Your task to perform on an android device: add a contact in the contacts app Image 0: 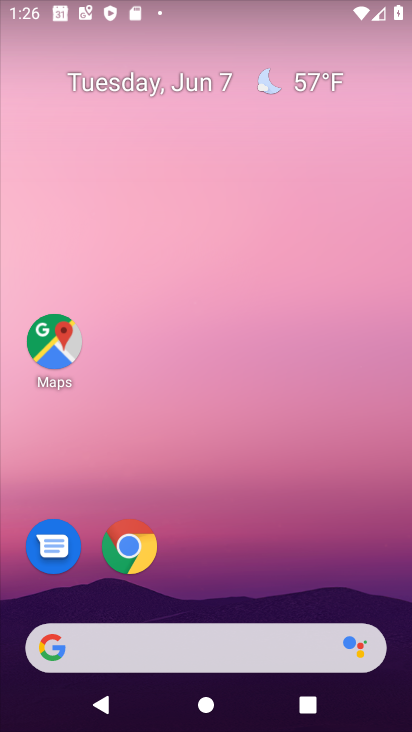
Step 0: drag from (254, 587) to (241, 215)
Your task to perform on an android device: add a contact in the contacts app Image 1: 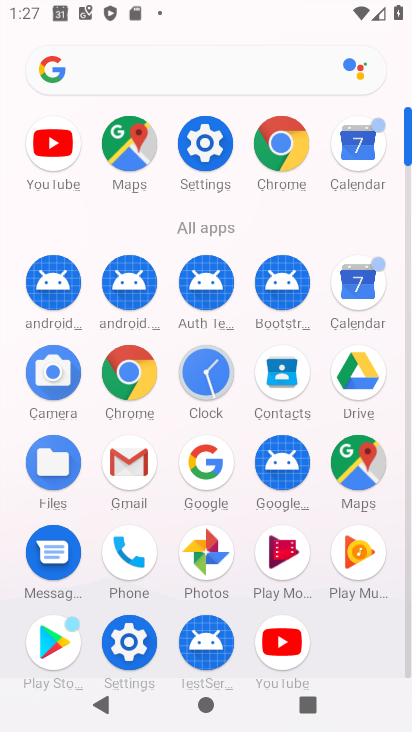
Step 1: click (283, 380)
Your task to perform on an android device: add a contact in the contacts app Image 2: 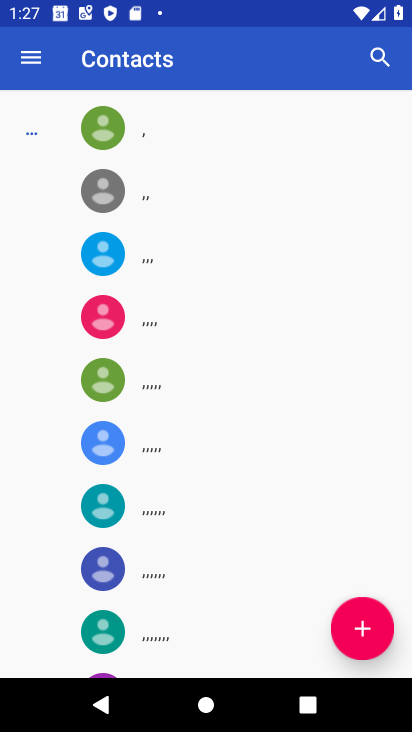
Step 2: click (363, 615)
Your task to perform on an android device: add a contact in the contacts app Image 3: 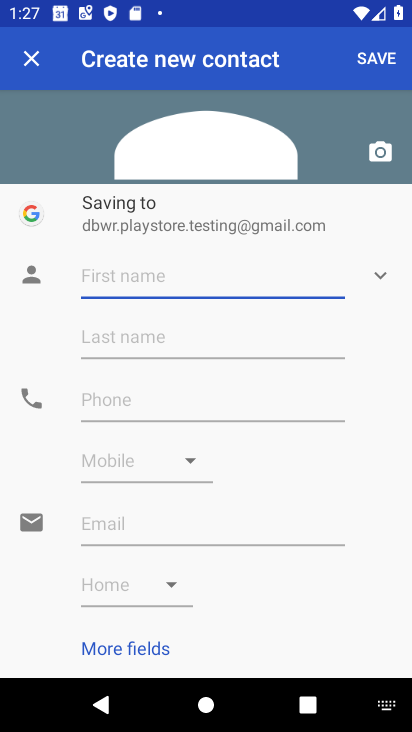
Step 3: click (162, 288)
Your task to perform on an android device: add a contact in the contacts app Image 4: 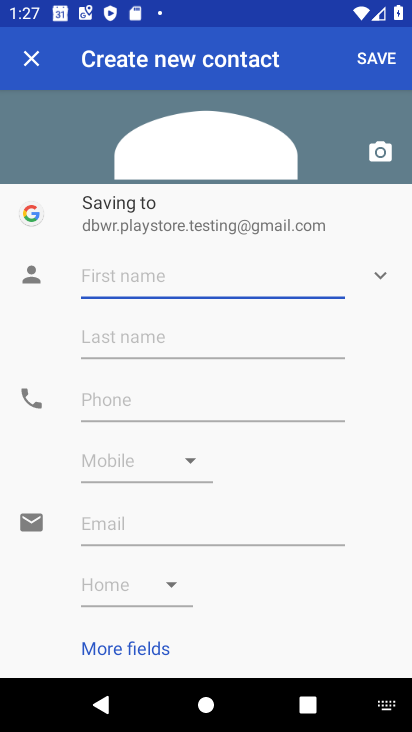
Step 4: type "bjkhbkb"
Your task to perform on an android device: add a contact in the contacts app Image 5: 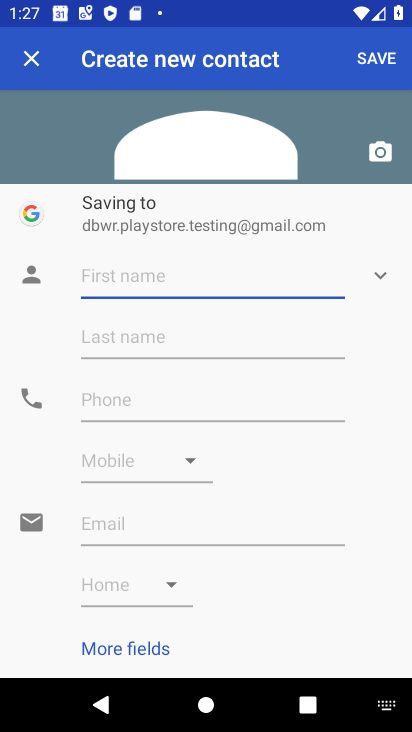
Step 5: click (322, 398)
Your task to perform on an android device: add a contact in the contacts app Image 6: 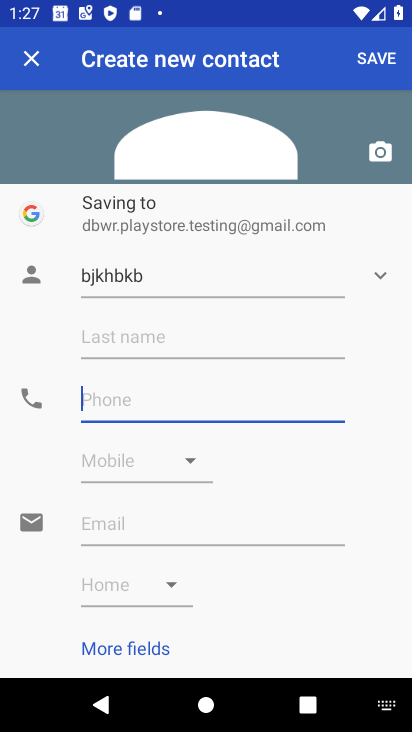
Step 6: type "98789798"
Your task to perform on an android device: add a contact in the contacts app Image 7: 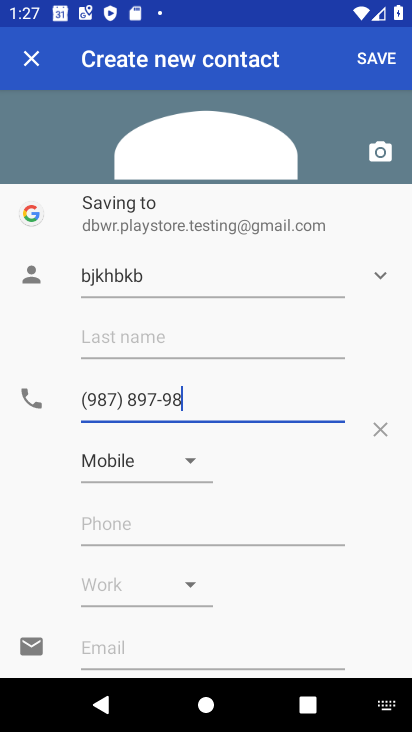
Step 7: click (381, 68)
Your task to perform on an android device: add a contact in the contacts app Image 8: 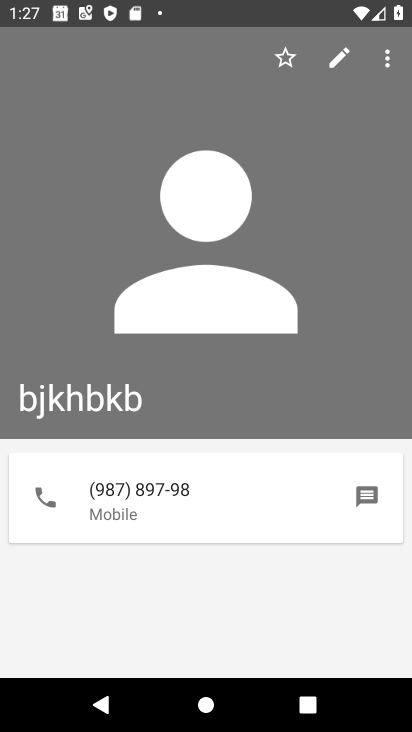
Step 8: task complete